Your task to perform on an android device: Open display settings Image 0: 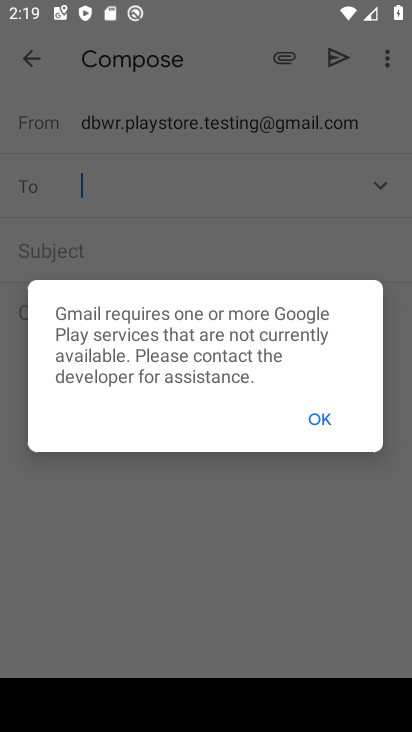
Step 0: click (322, 424)
Your task to perform on an android device: Open display settings Image 1: 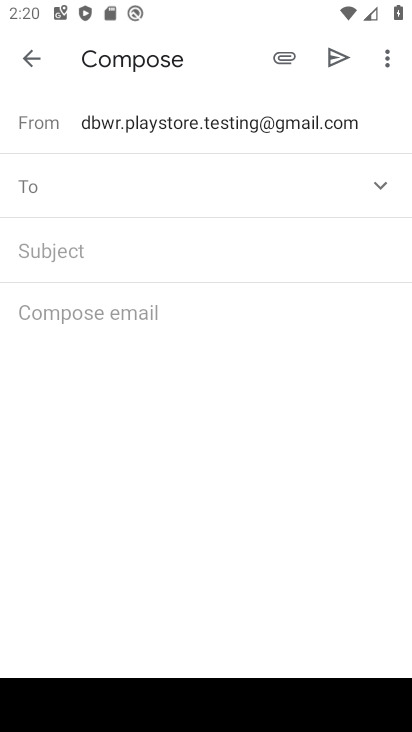
Step 1: press home button
Your task to perform on an android device: Open display settings Image 2: 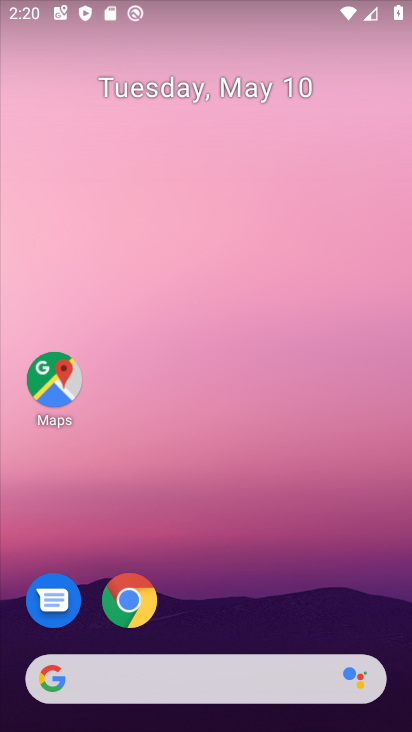
Step 2: drag from (239, 615) to (279, 165)
Your task to perform on an android device: Open display settings Image 3: 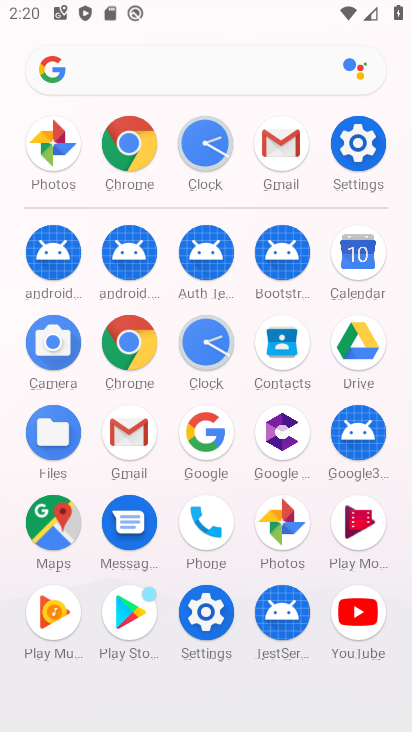
Step 3: click (365, 160)
Your task to perform on an android device: Open display settings Image 4: 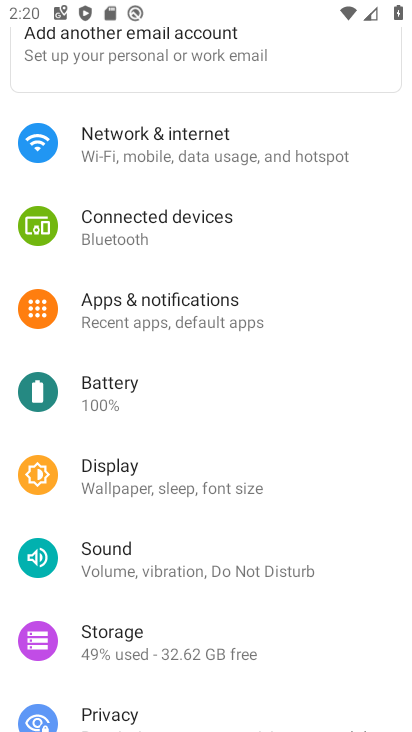
Step 4: click (120, 466)
Your task to perform on an android device: Open display settings Image 5: 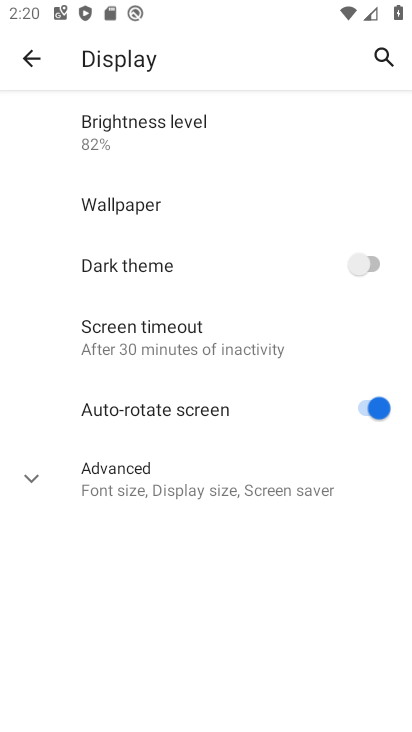
Step 5: task complete